Your task to perform on an android device: Set the phone to "Do not disturb". Image 0: 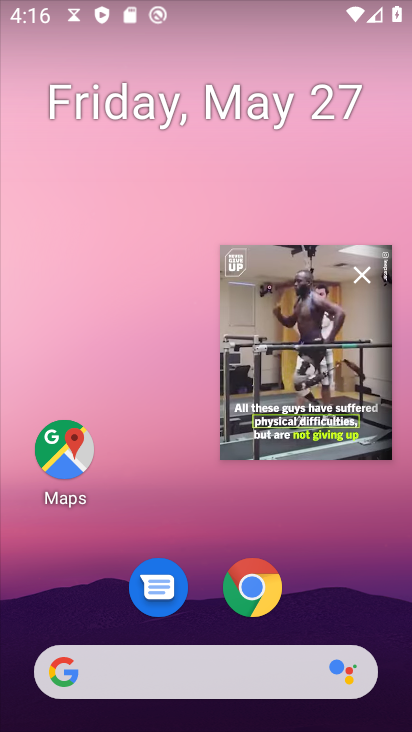
Step 0: click (299, 256)
Your task to perform on an android device: Set the phone to "Do not disturb". Image 1: 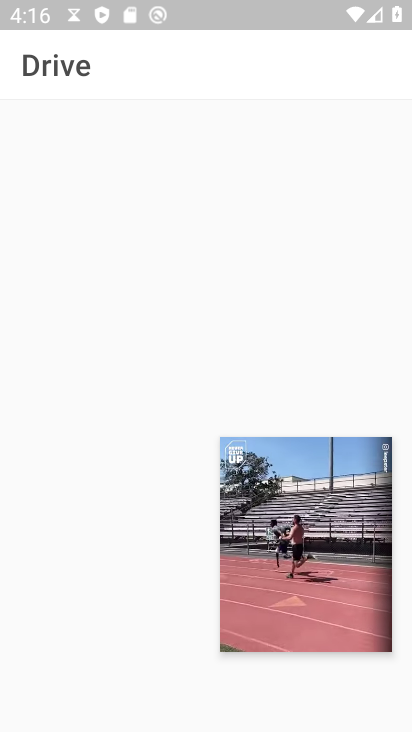
Step 1: click (371, 444)
Your task to perform on an android device: Set the phone to "Do not disturb". Image 2: 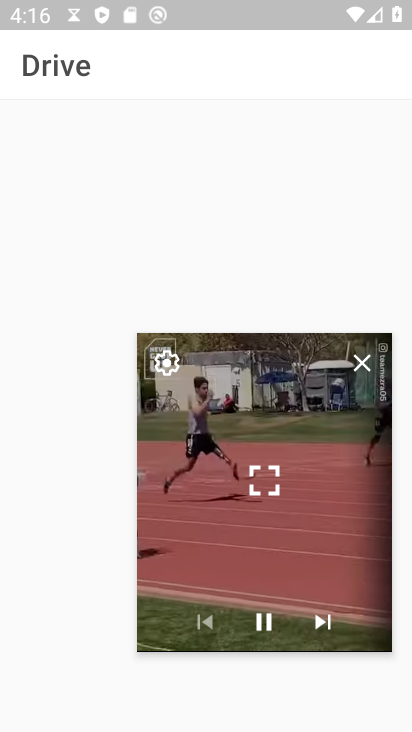
Step 2: click (361, 364)
Your task to perform on an android device: Set the phone to "Do not disturb". Image 3: 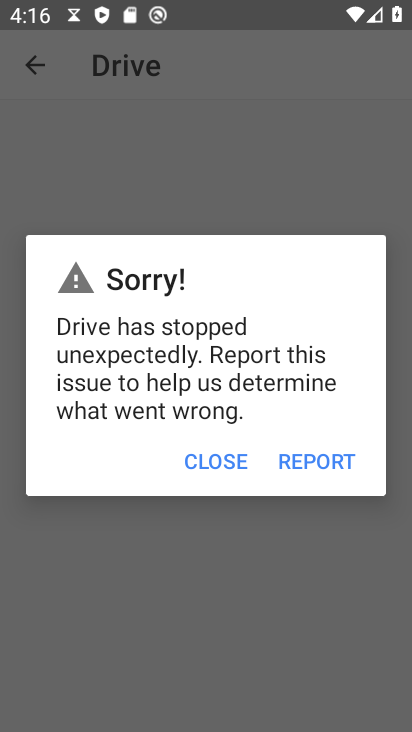
Step 3: press back button
Your task to perform on an android device: Set the phone to "Do not disturb". Image 4: 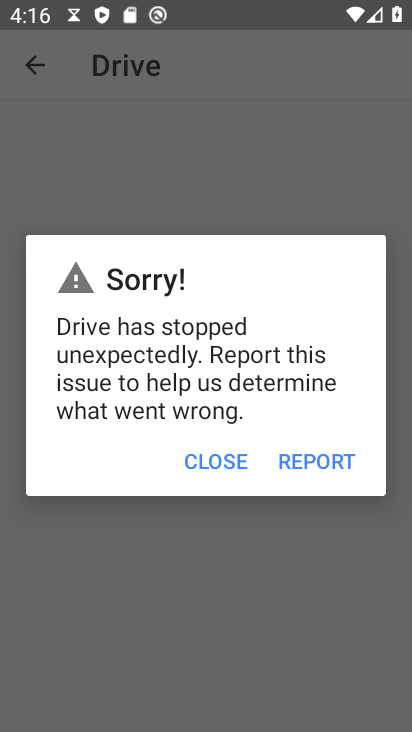
Step 4: press back button
Your task to perform on an android device: Set the phone to "Do not disturb". Image 5: 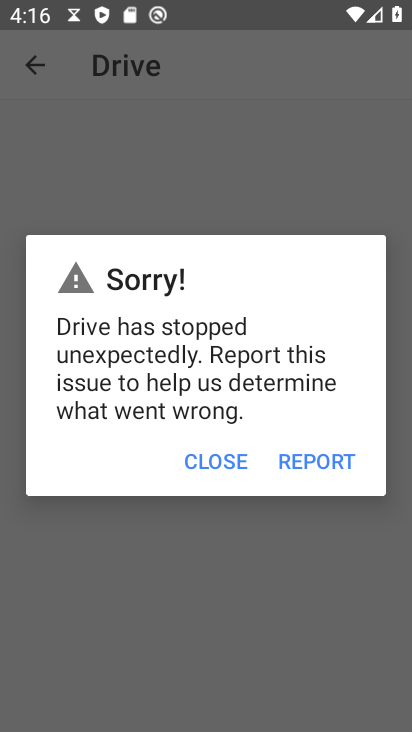
Step 5: press back button
Your task to perform on an android device: Set the phone to "Do not disturb". Image 6: 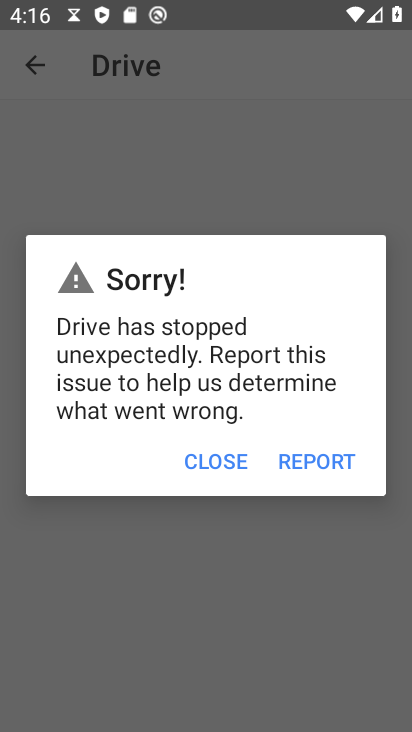
Step 6: press back button
Your task to perform on an android device: Set the phone to "Do not disturb". Image 7: 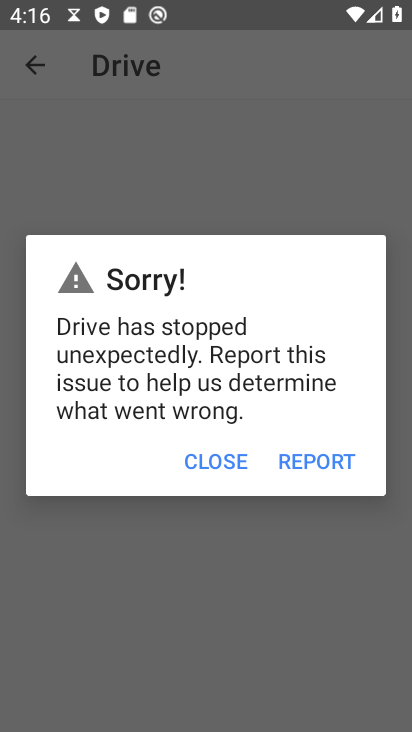
Step 7: press home button
Your task to perform on an android device: Set the phone to "Do not disturb". Image 8: 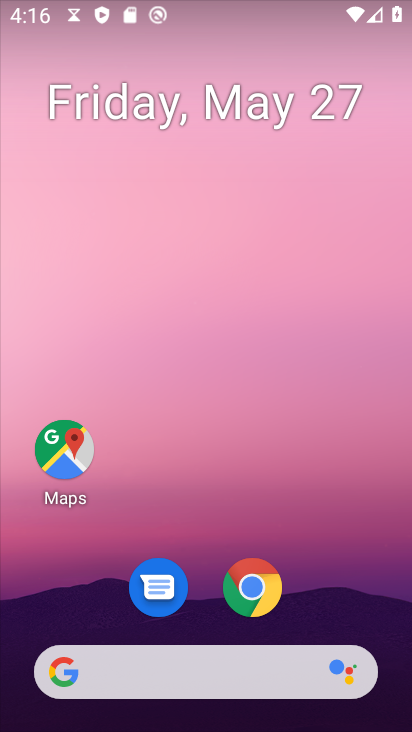
Step 8: drag from (347, 587) to (272, 77)
Your task to perform on an android device: Set the phone to "Do not disturb". Image 9: 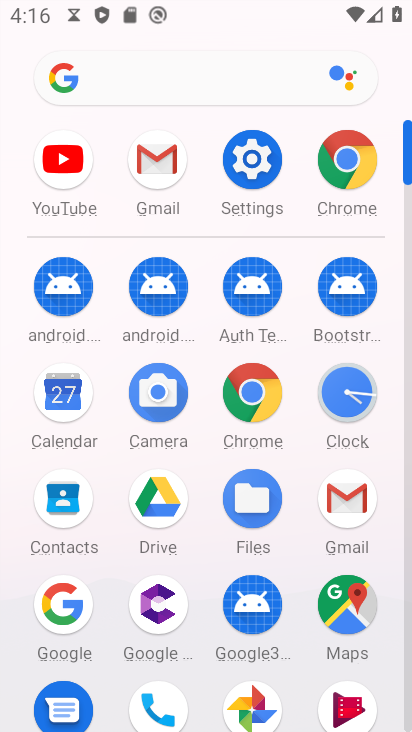
Step 9: drag from (13, 609) to (25, 249)
Your task to perform on an android device: Set the phone to "Do not disturb". Image 10: 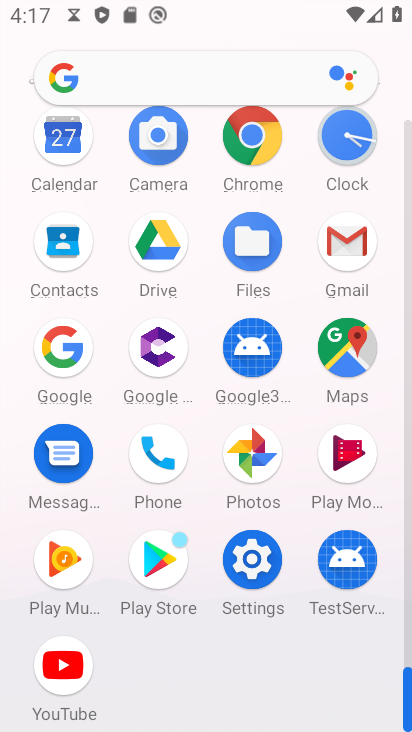
Step 10: click (249, 560)
Your task to perform on an android device: Set the phone to "Do not disturb". Image 11: 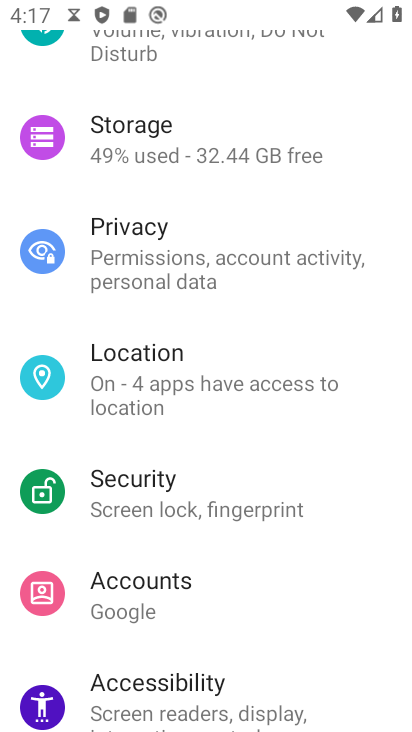
Step 11: drag from (223, 140) to (225, 458)
Your task to perform on an android device: Set the phone to "Do not disturb". Image 12: 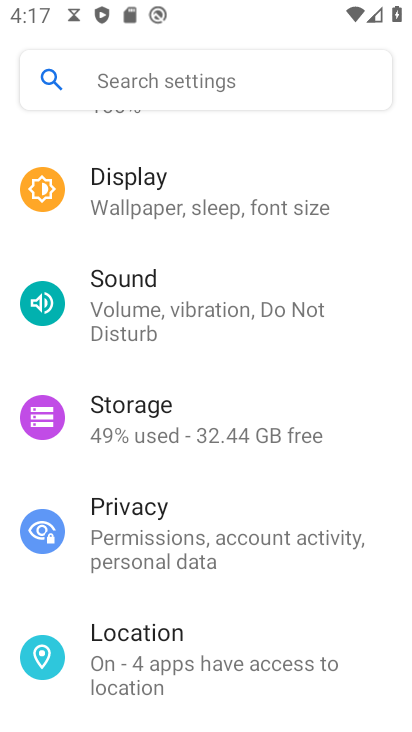
Step 12: click (215, 296)
Your task to perform on an android device: Set the phone to "Do not disturb". Image 13: 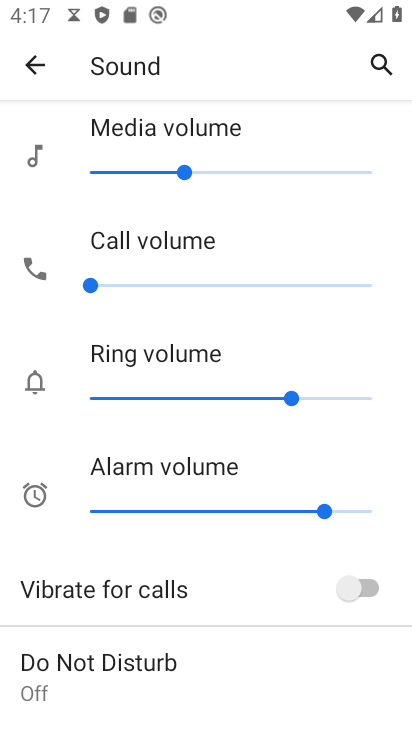
Step 13: drag from (215, 590) to (229, 198)
Your task to perform on an android device: Set the phone to "Do not disturb". Image 14: 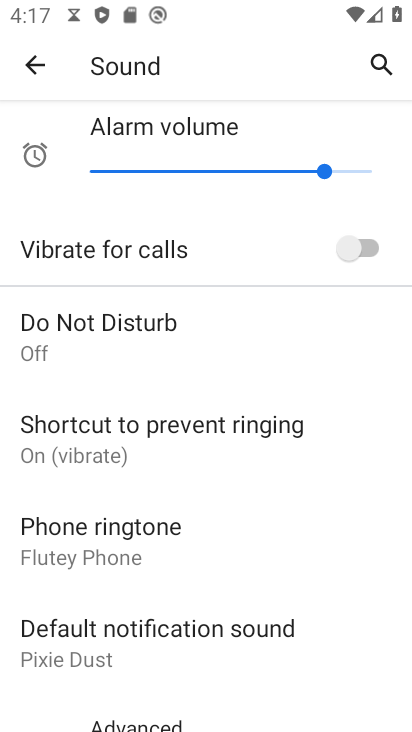
Step 14: click (168, 326)
Your task to perform on an android device: Set the phone to "Do not disturb". Image 15: 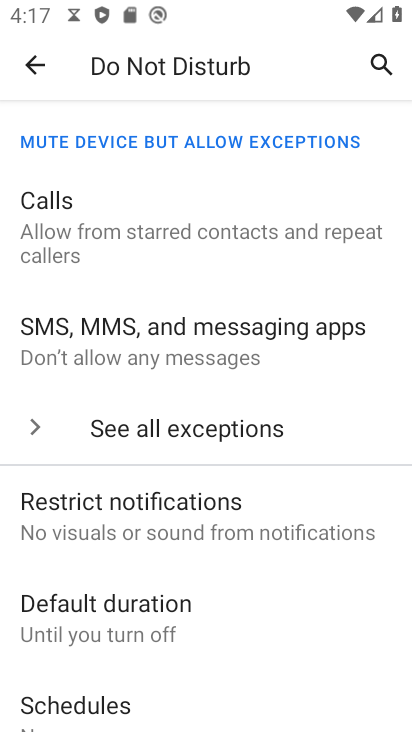
Step 15: drag from (209, 575) to (229, 206)
Your task to perform on an android device: Set the phone to "Do not disturb". Image 16: 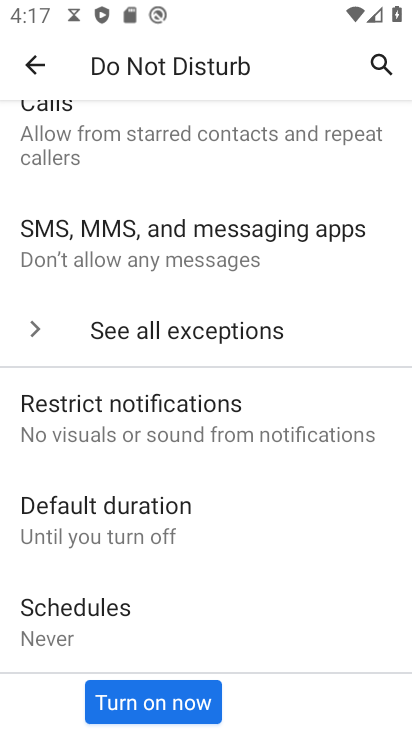
Step 16: click (151, 704)
Your task to perform on an android device: Set the phone to "Do not disturb". Image 17: 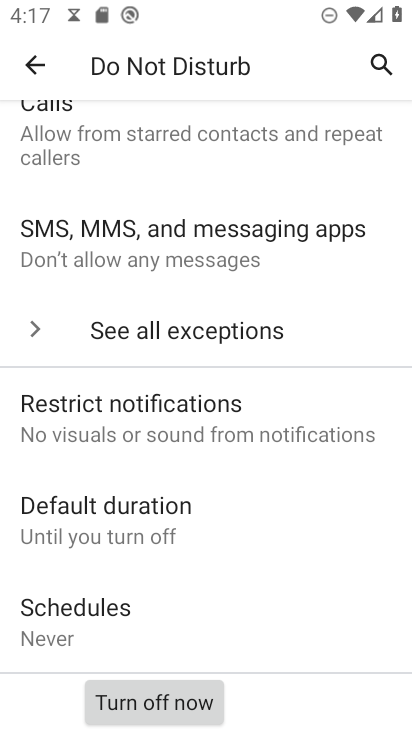
Step 17: task complete